Your task to perform on an android device: Open ESPN.com Image 0: 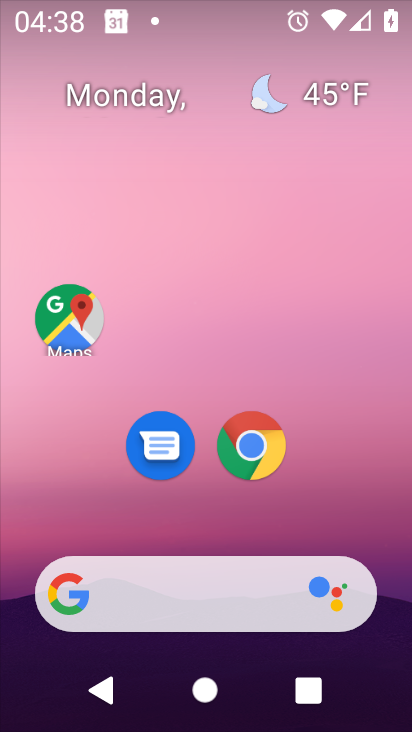
Step 0: click (242, 445)
Your task to perform on an android device: Open ESPN.com Image 1: 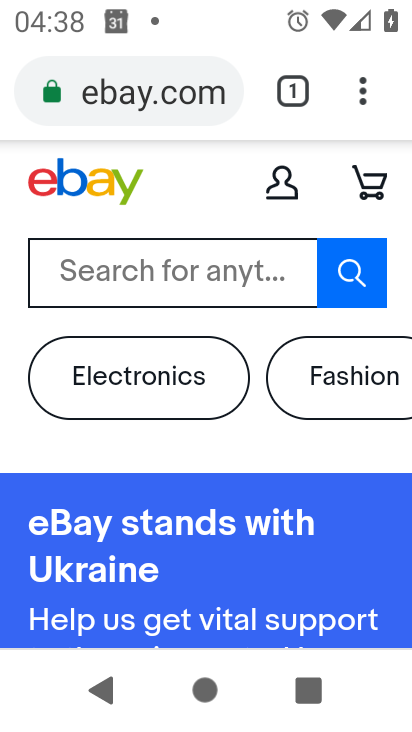
Step 1: click (135, 110)
Your task to perform on an android device: Open ESPN.com Image 2: 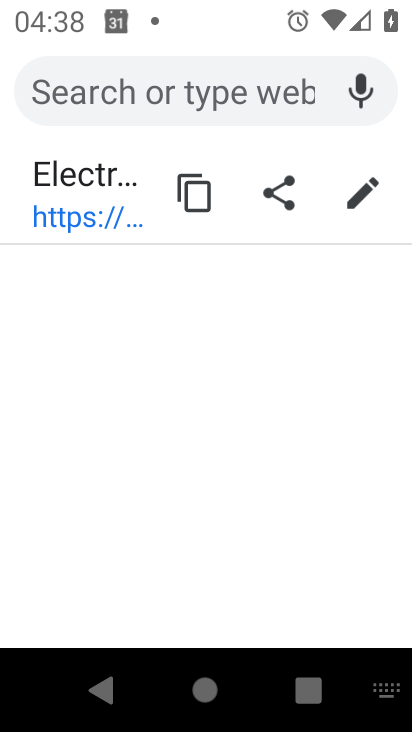
Step 2: type "ESPN.com"
Your task to perform on an android device: Open ESPN.com Image 3: 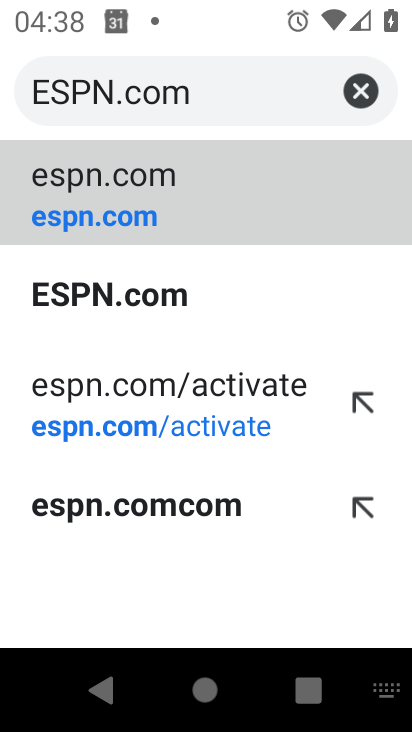
Step 3: click (113, 210)
Your task to perform on an android device: Open ESPN.com Image 4: 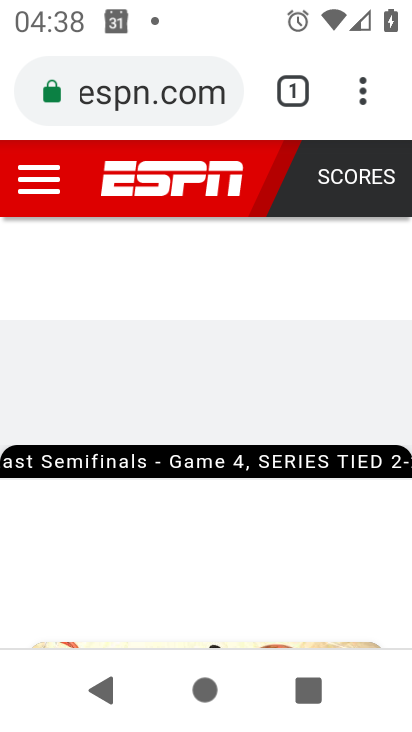
Step 4: task complete